Your task to perform on an android device: create a new album in the google photos Image 0: 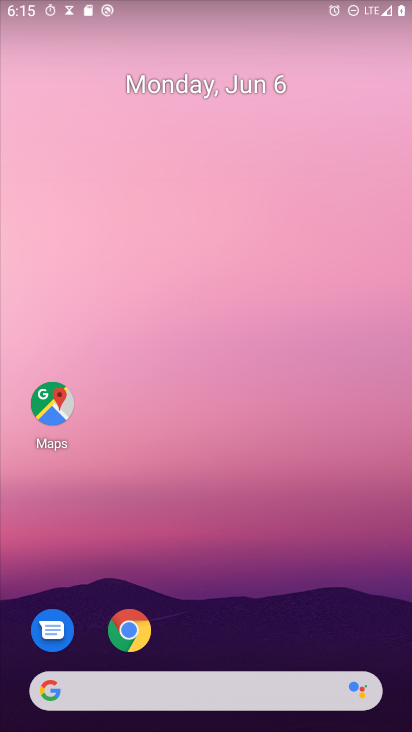
Step 0: drag from (257, 568) to (112, 8)
Your task to perform on an android device: create a new album in the google photos Image 1: 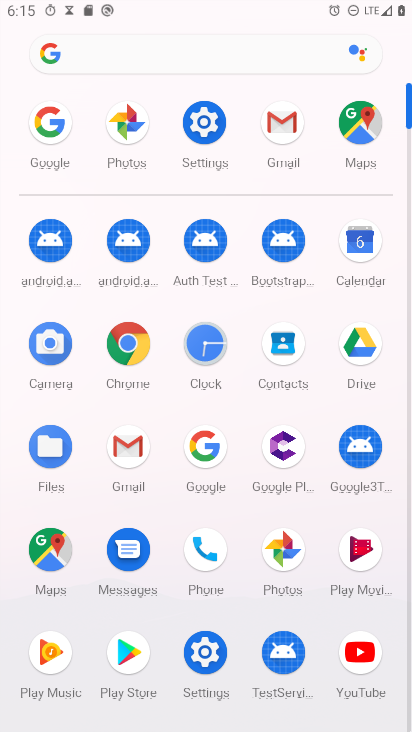
Step 1: click (283, 548)
Your task to perform on an android device: create a new album in the google photos Image 2: 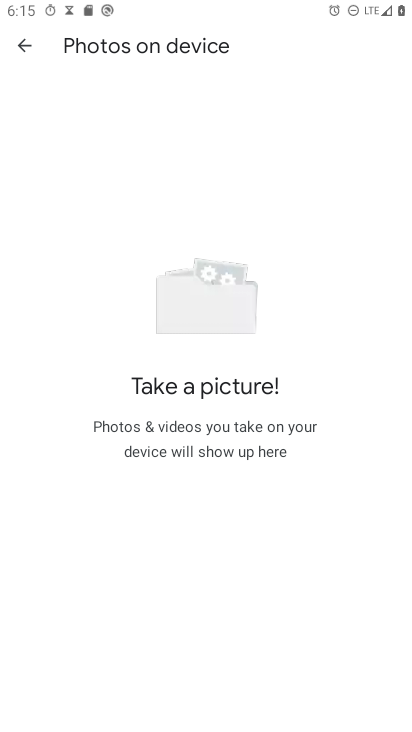
Step 2: click (24, 44)
Your task to perform on an android device: create a new album in the google photos Image 3: 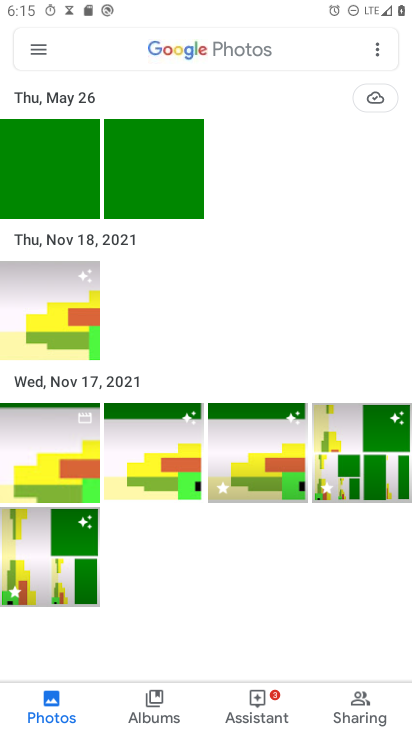
Step 3: click (136, 706)
Your task to perform on an android device: create a new album in the google photos Image 4: 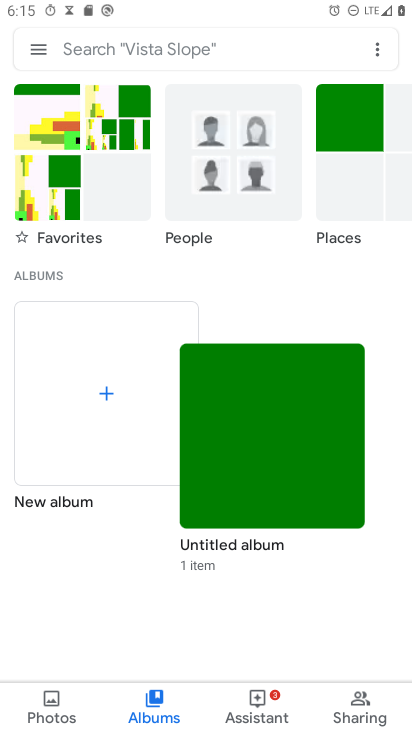
Step 4: click (103, 388)
Your task to perform on an android device: create a new album in the google photos Image 5: 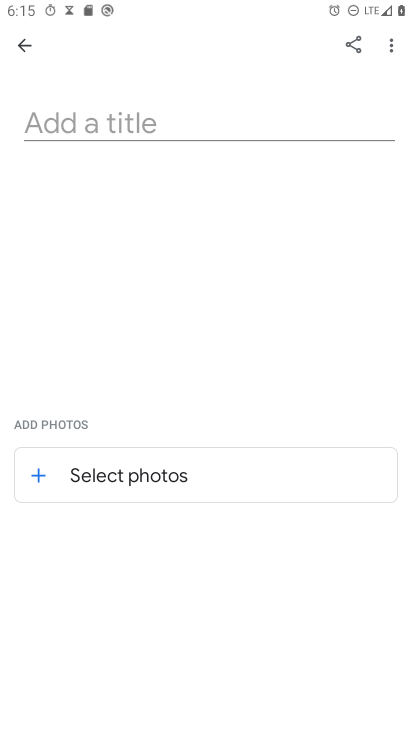
Step 5: click (123, 116)
Your task to perform on an android device: create a new album in the google photos Image 6: 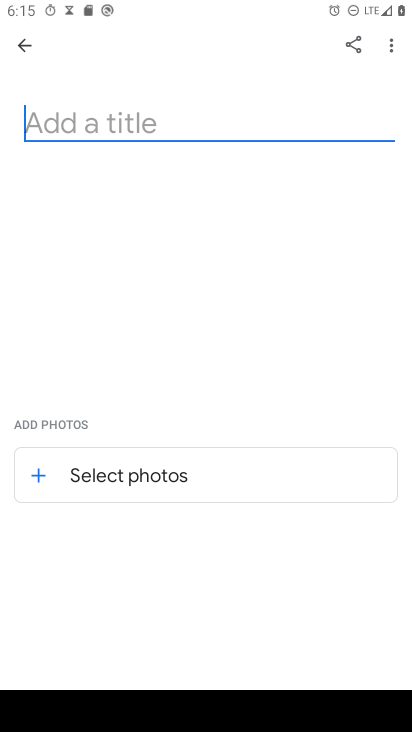
Step 6: type "gfsdfg"
Your task to perform on an android device: create a new album in the google photos Image 7: 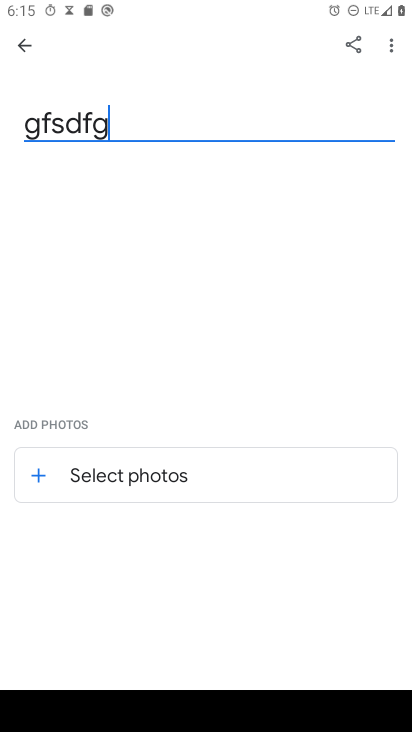
Step 7: type ""
Your task to perform on an android device: create a new album in the google photos Image 8: 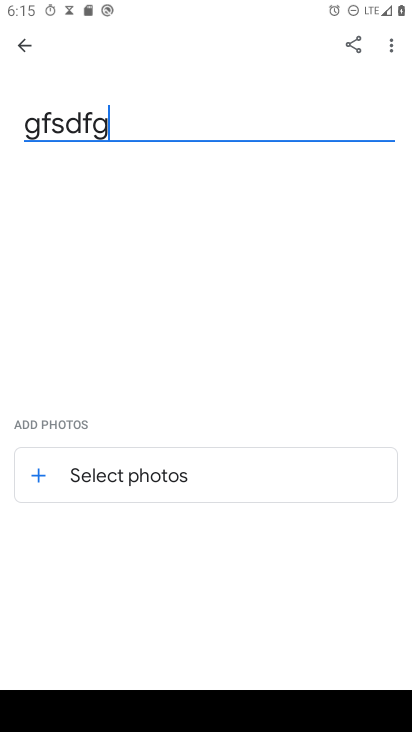
Step 8: click (140, 475)
Your task to perform on an android device: create a new album in the google photos Image 9: 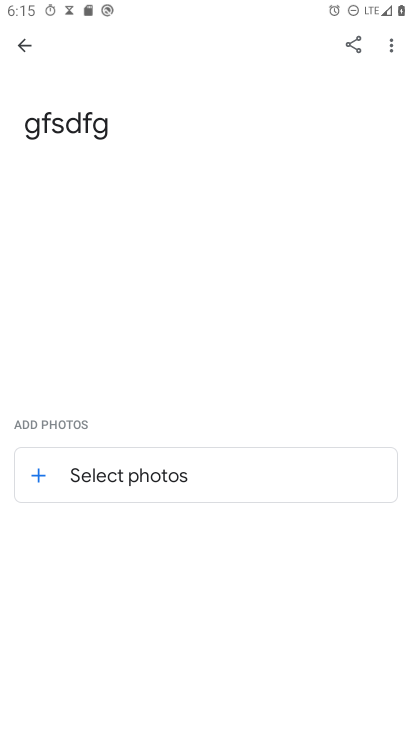
Step 9: click (160, 476)
Your task to perform on an android device: create a new album in the google photos Image 10: 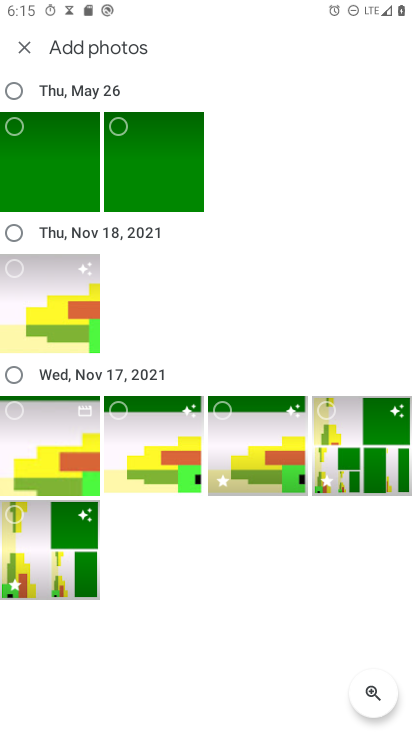
Step 10: click (59, 178)
Your task to perform on an android device: create a new album in the google photos Image 11: 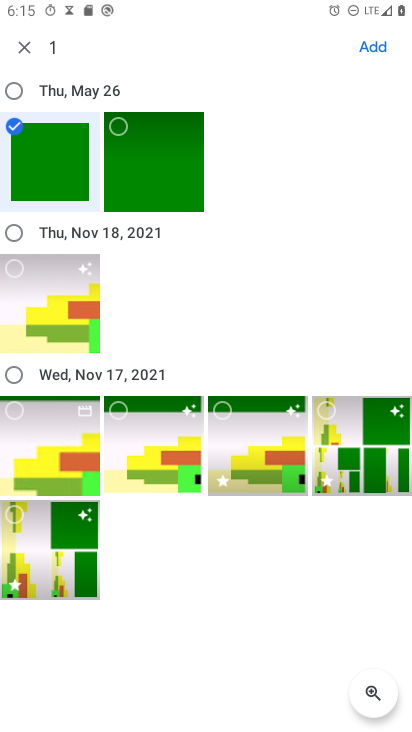
Step 11: click (166, 441)
Your task to perform on an android device: create a new album in the google photos Image 12: 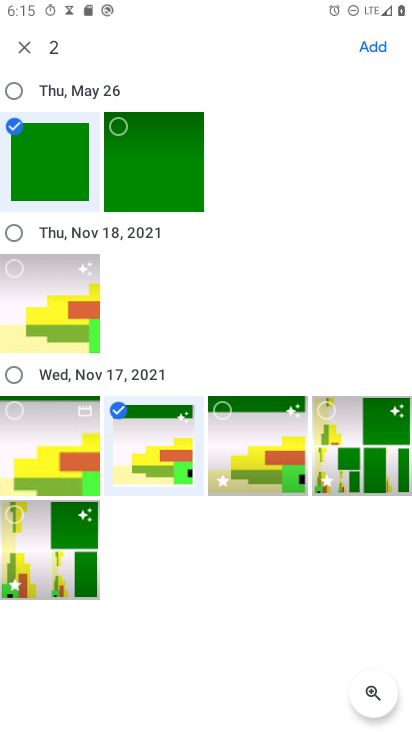
Step 12: click (47, 555)
Your task to perform on an android device: create a new album in the google photos Image 13: 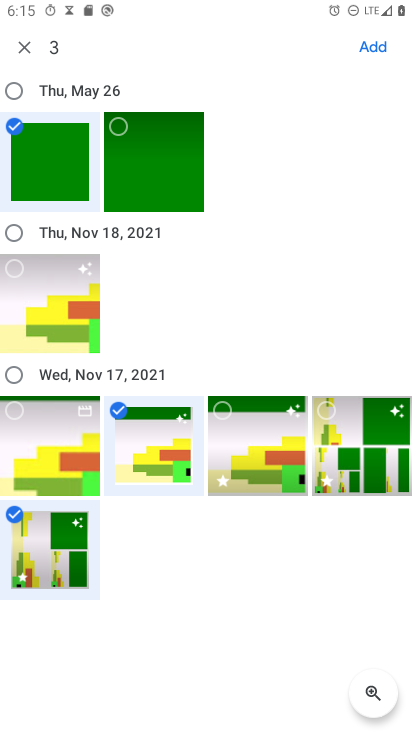
Step 13: click (373, 41)
Your task to perform on an android device: create a new album in the google photos Image 14: 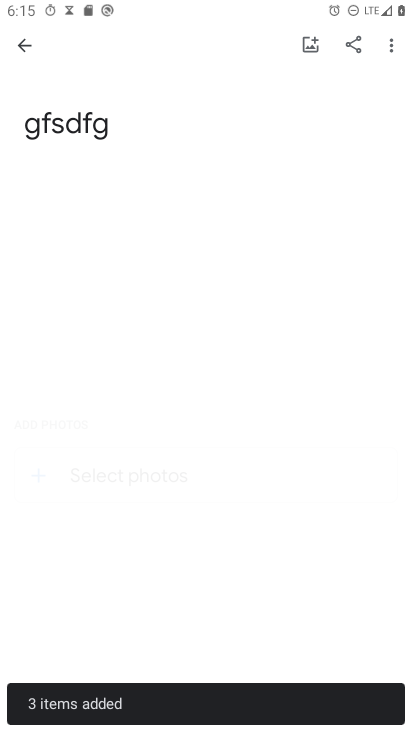
Step 14: task complete